Your task to perform on an android device: open a bookmark in the chrome app Image 0: 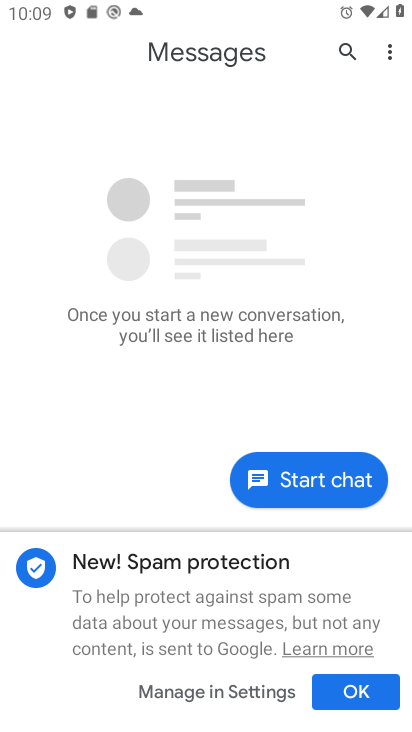
Step 0: press home button
Your task to perform on an android device: open a bookmark in the chrome app Image 1: 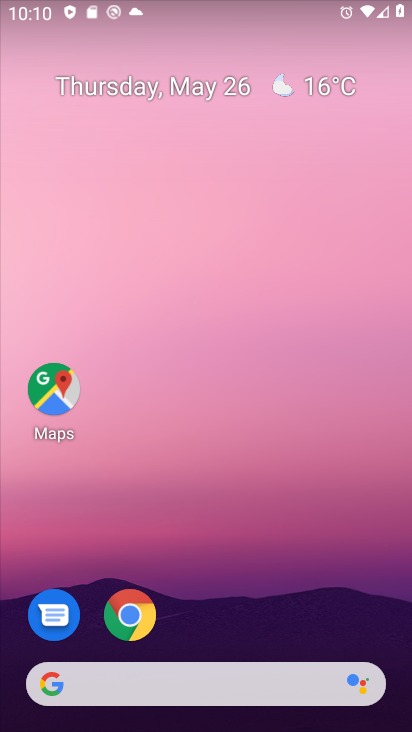
Step 1: drag from (274, 717) to (204, 182)
Your task to perform on an android device: open a bookmark in the chrome app Image 2: 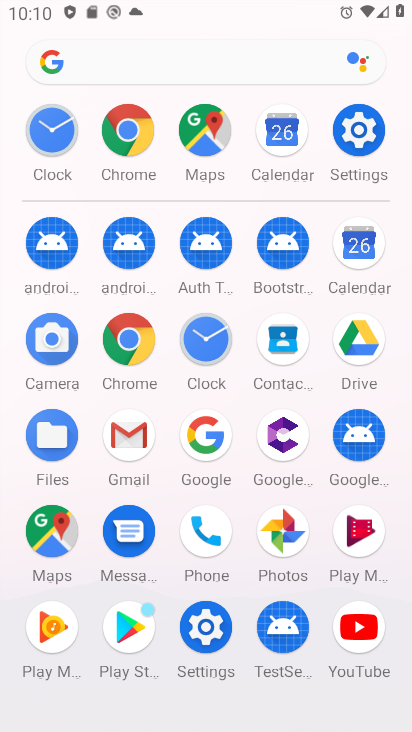
Step 2: click (120, 335)
Your task to perform on an android device: open a bookmark in the chrome app Image 3: 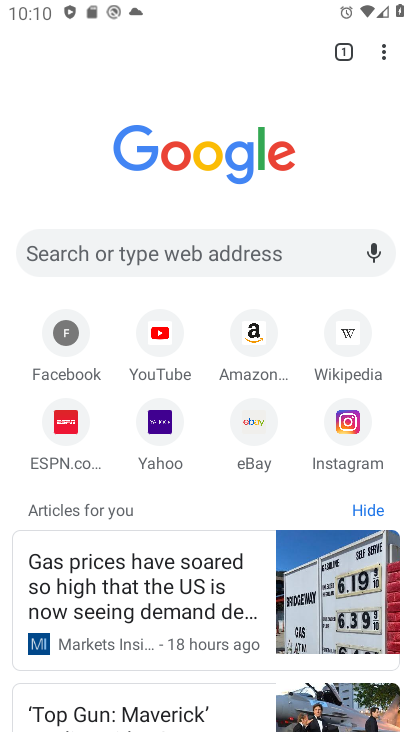
Step 3: click (381, 65)
Your task to perform on an android device: open a bookmark in the chrome app Image 4: 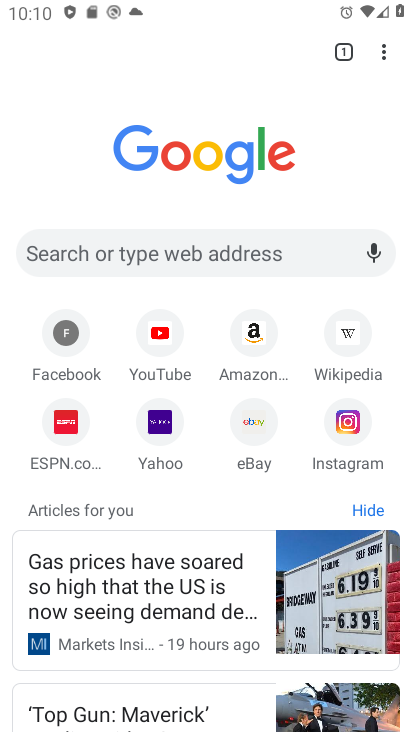
Step 4: click (378, 59)
Your task to perform on an android device: open a bookmark in the chrome app Image 5: 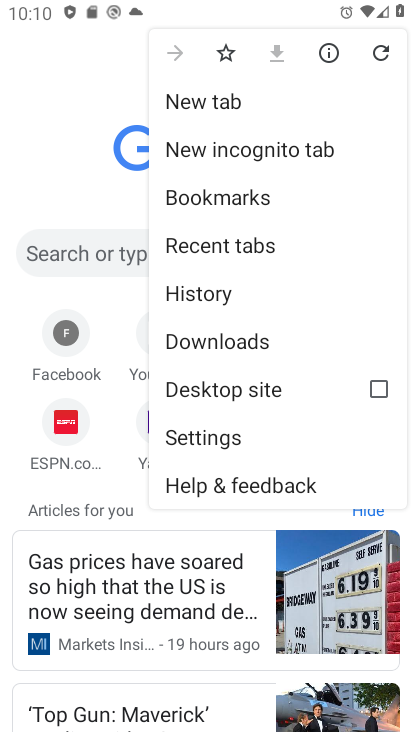
Step 5: click (201, 209)
Your task to perform on an android device: open a bookmark in the chrome app Image 6: 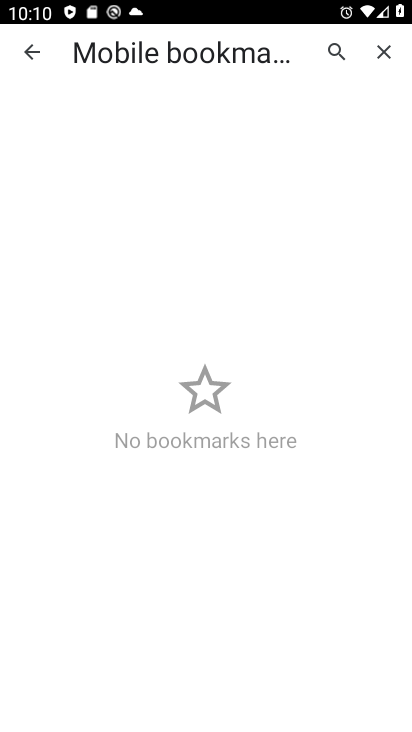
Step 6: task complete